Your task to perform on an android device: set an alarm Image 0: 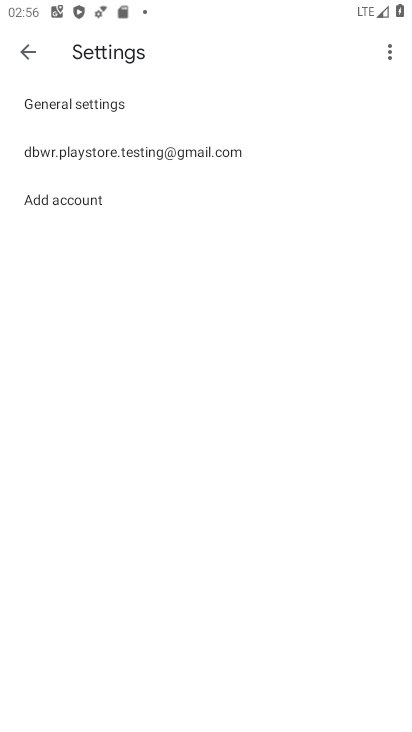
Step 0: press home button
Your task to perform on an android device: set an alarm Image 1: 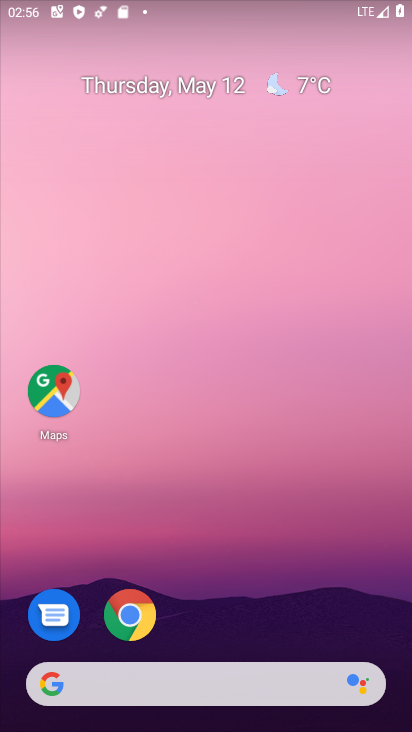
Step 1: drag from (178, 700) to (42, 157)
Your task to perform on an android device: set an alarm Image 2: 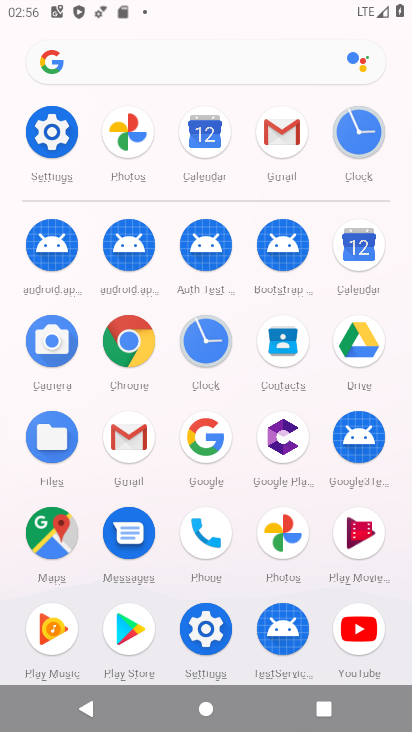
Step 2: click (196, 328)
Your task to perform on an android device: set an alarm Image 3: 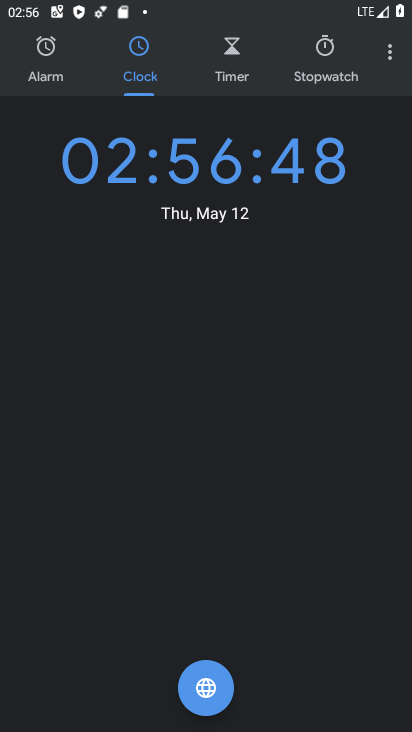
Step 3: click (45, 64)
Your task to perform on an android device: set an alarm Image 4: 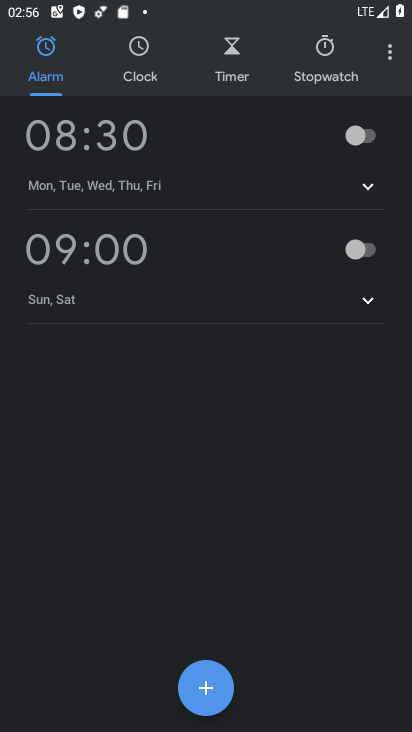
Step 4: click (202, 689)
Your task to perform on an android device: set an alarm Image 5: 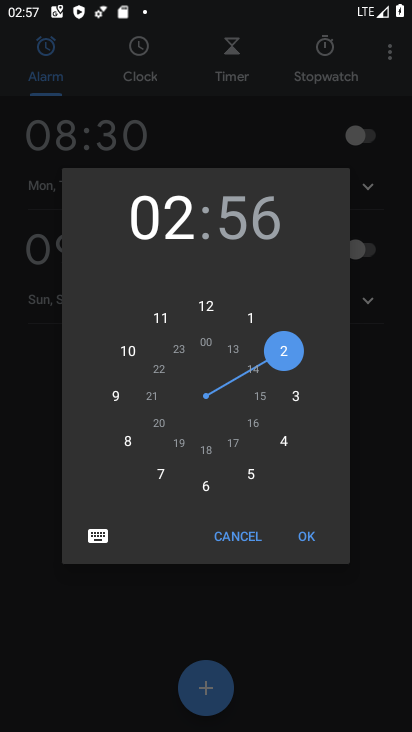
Step 5: click (303, 540)
Your task to perform on an android device: set an alarm Image 6: 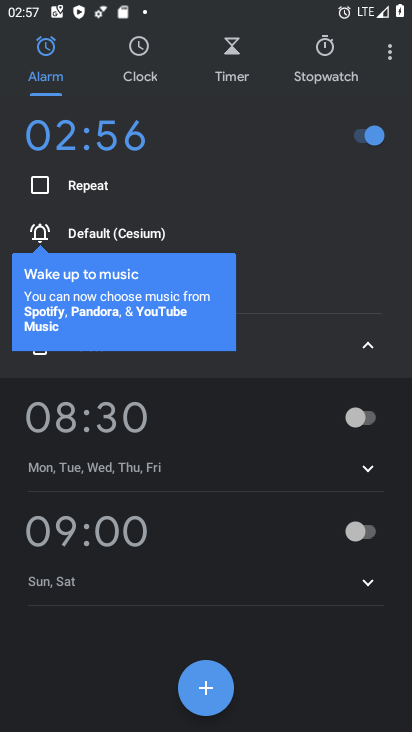
Step 6: task complete